Your task to perform on an android device: add a label to a message in the gmail app Image 0: 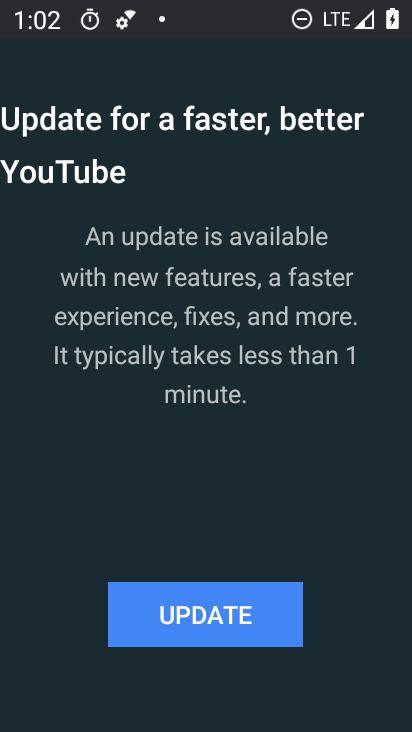
Step 0: press home button
Your task to perform on an android device: add a label to a message in the gmail app Image 1: 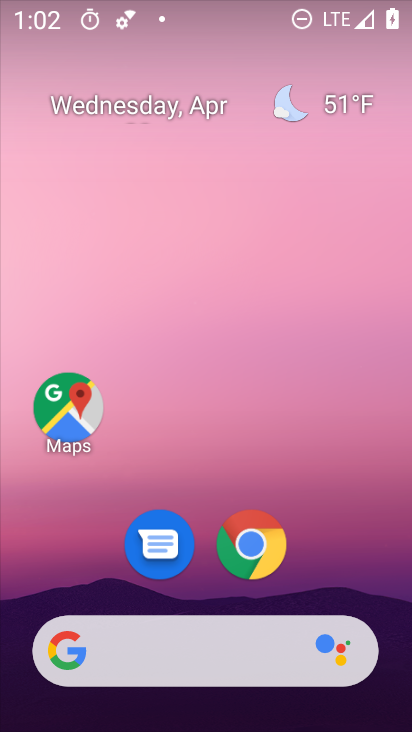
Step 1: drag from (339, 547) to (336, 127)
Your task to perform on an android device: add a label to a message in the gmail app Image 2: 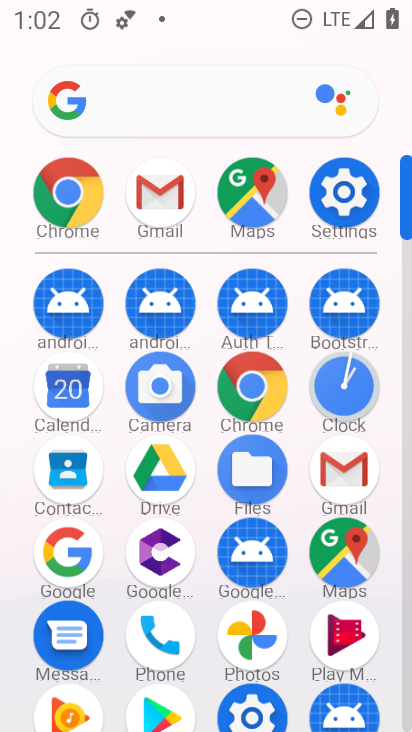
Step 2: click (354, 469)
Your task to perform on an android device: add a label to a message in the gmail app Image 3: 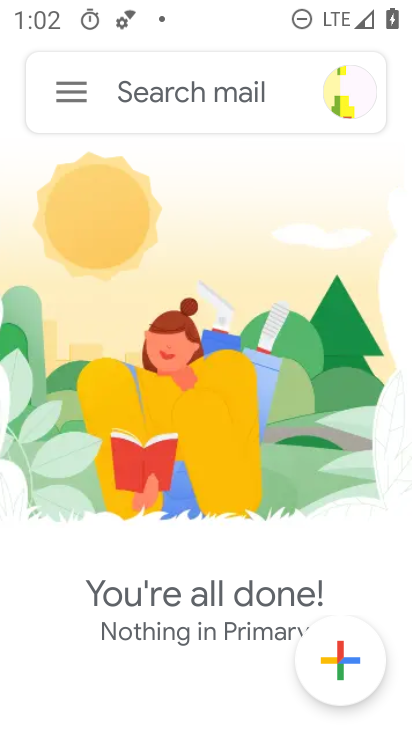
Step 3: click (78, 92)
Your task to perform on an android device: add a label to a message in the gmail app Image 4: 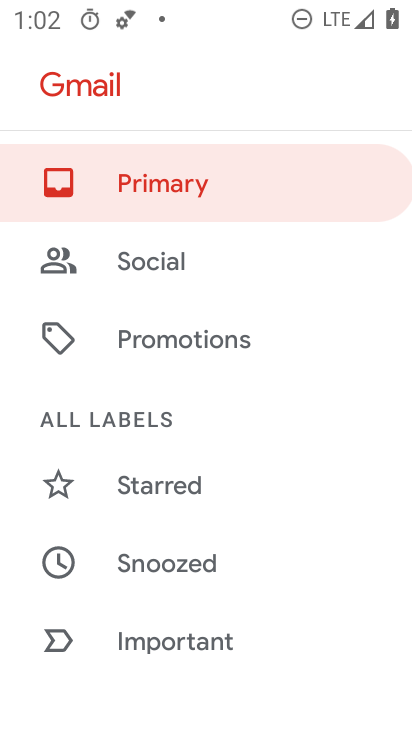
Step 4: drag from (292, 571) to (328, 348)
Your task to perform on an android device: add a label to a message in the gmail app Image 5: 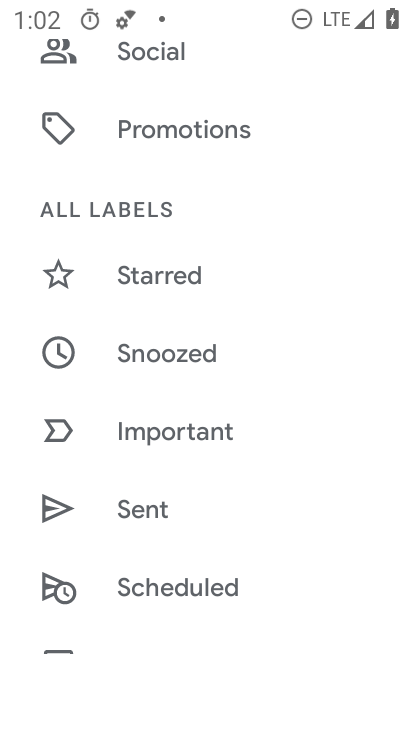
Step 5: drag from (323, 590) to (342, 410)
Your task to perform on an android device: add a label to a message in the gmail app Image 6: 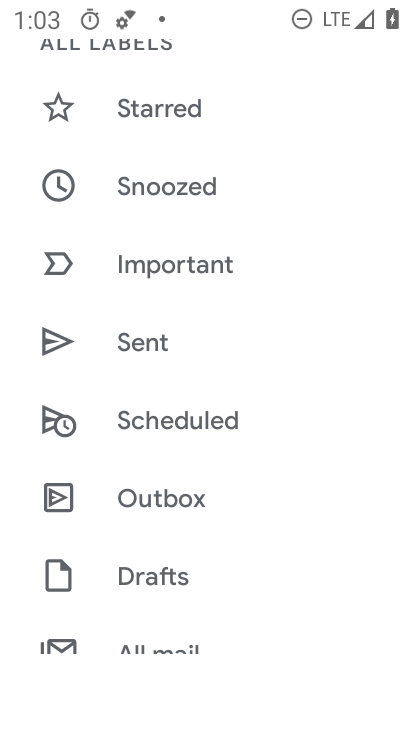
Step 6: drag from (342, 408) to (333, 250)
Your task to perform on an android device: add a label to a message in the gmail app Image 7: 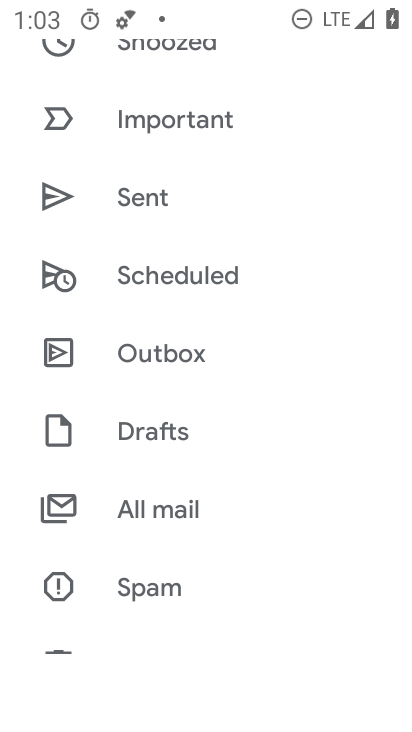
Step 7: drag from (338, 437) to (321, 276)
Your task to perform on an android device: add a label to a message in the gmail app Image 8: 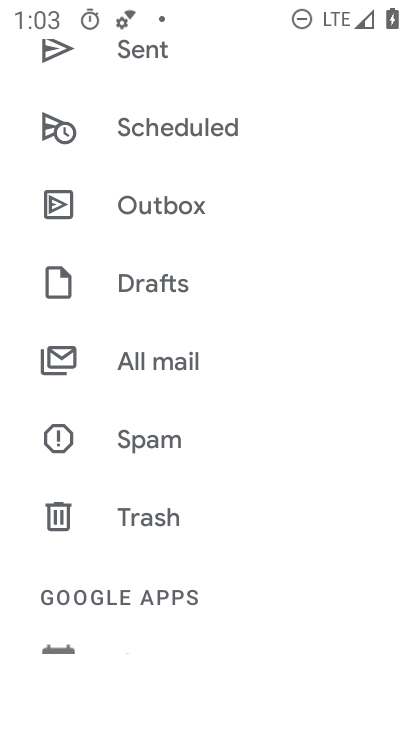
Step 8: drag from (344, 177) to (344, 347)
Your task to perform on an android device: add a label to a message in the gmail app Image 9: 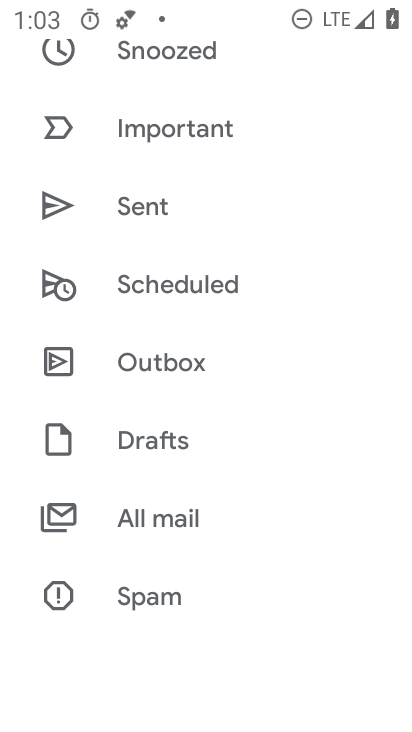
Step 9: drag from (352, 262) to (357, 434)
Your task to perform on an android device: add a label to a message in the gmail app Image 10: 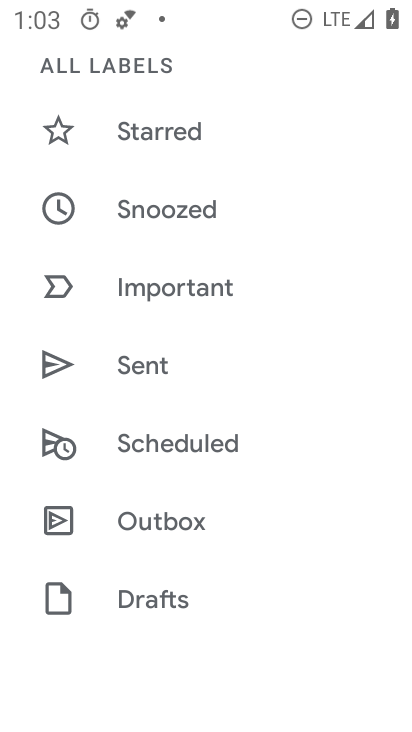
Step 10: drag from (362, 234) to (371, 391)
Your task to perform on an android device: add a label to a message in the gmail app Image 11: 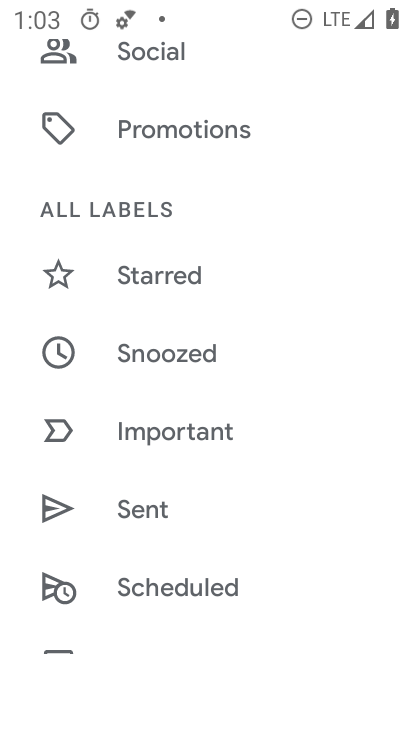
Step 11: drag from (352, 224) to (359, 394)
Your task to perform on an android device: add a label to a message in the gmail app Image 12: 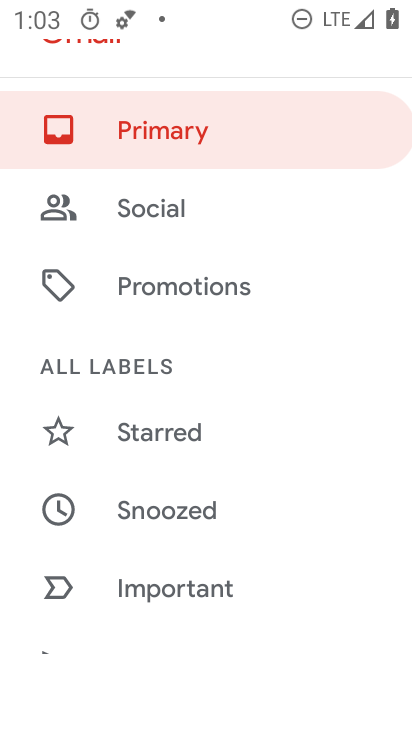
Step 12: click (204, 119)
Your task to perform on an android device: add a label to a message in the gmail app Image 13: 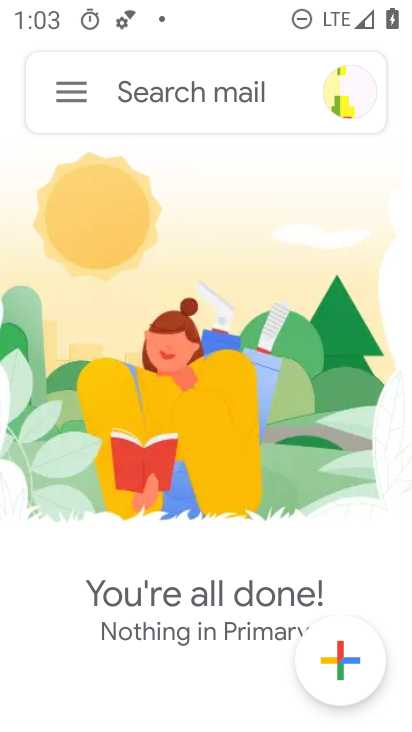
Step 13: task complete